Your task to perform on an android device: add a contact Image 0: 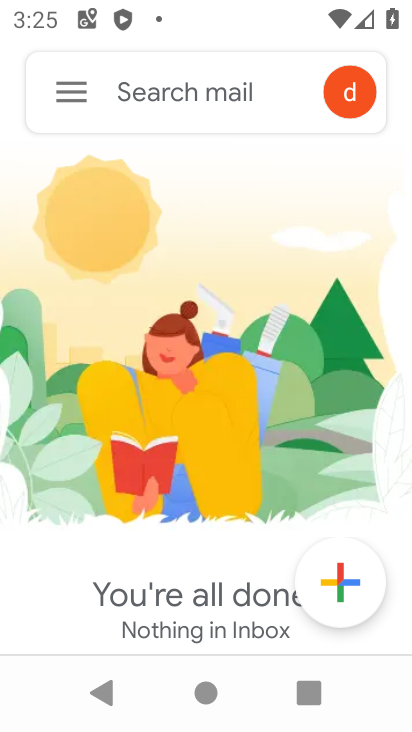
Step 0: press home button
Your task to perform on an android device: add a contact Image 1: 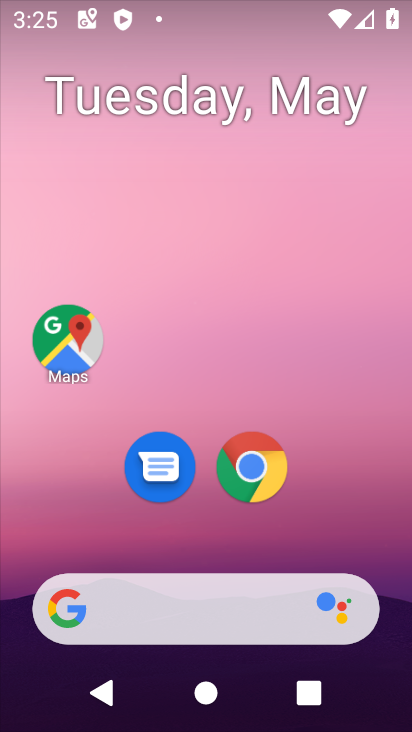
Step 1: drag from (354, 528) to (317, 171)
Your task to perform on an android device: add a contact Image 2: 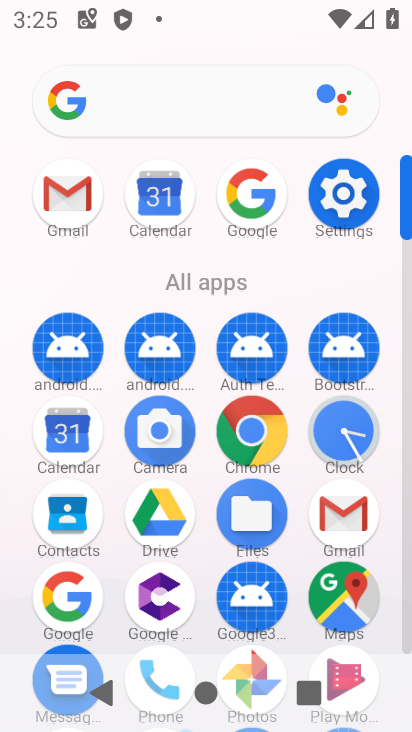
Step 2: click (49, 519)
Your task to perform on an android device: add a contact Image 3: 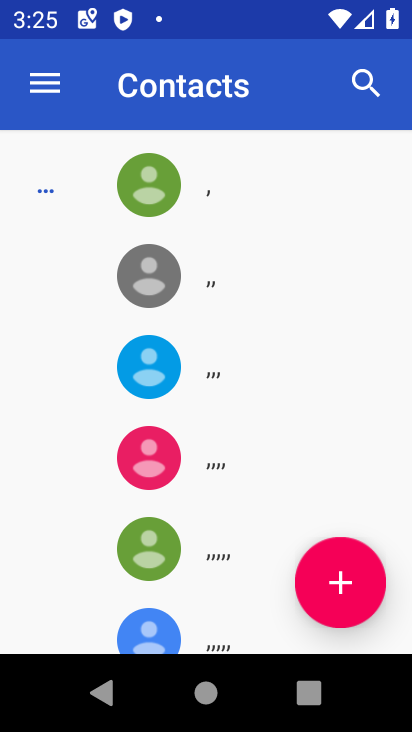
Step 3: click (320, 595)
Your task to perform on an android device: add a contact Image 4: 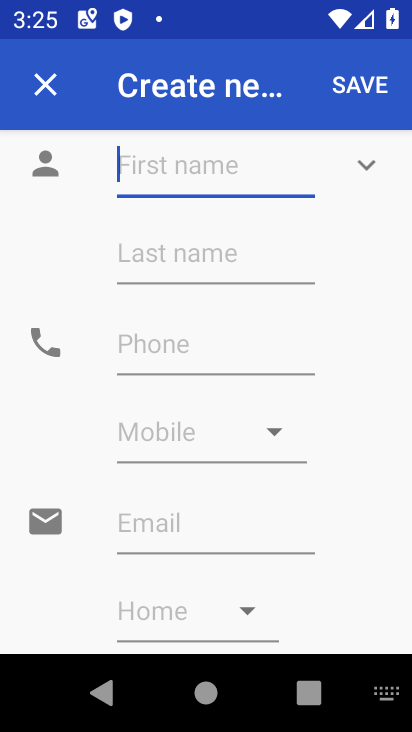
Step 4: click (231, 167)
Your task to perform on an android device: add a contact Image 5: 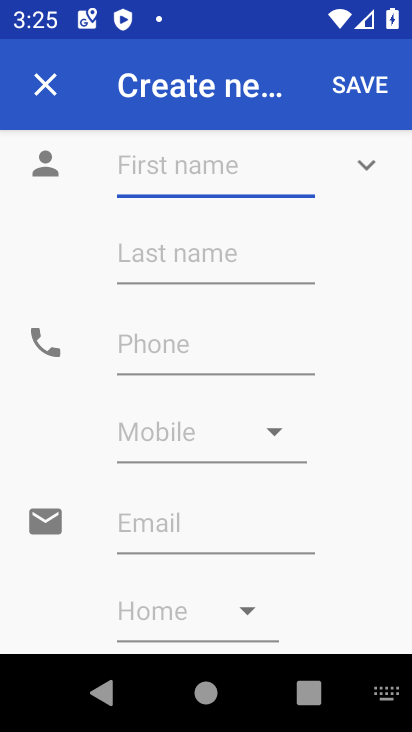
Step 5: type "dffddddddddddr"
Your task to perform on an android device: add a contact Image 6: 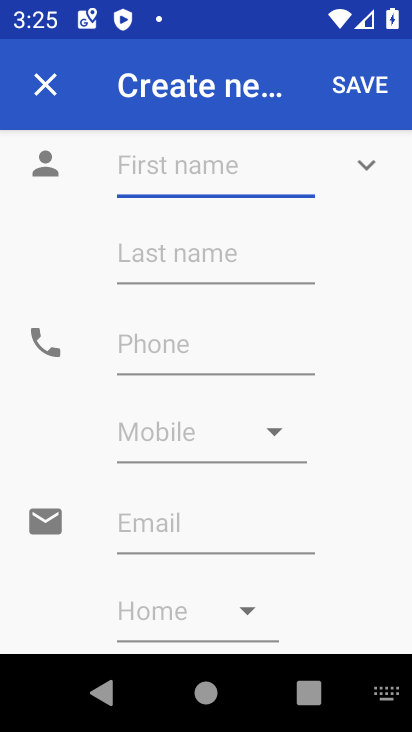
Step 6: click (202, 174)
Your task to perform on an android device: add a contact Image 7: 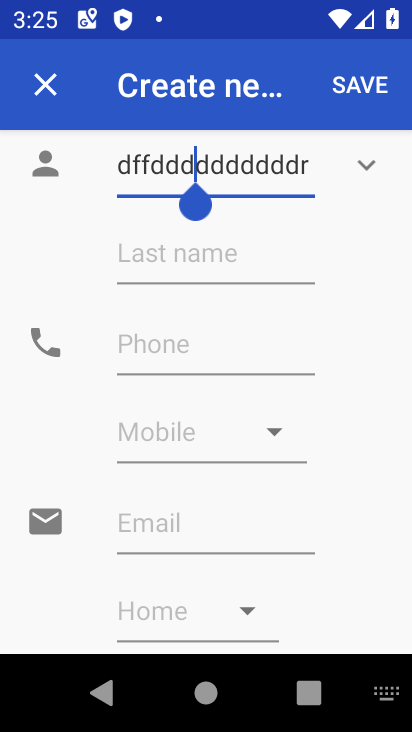
Step 7: click (179, 353)
Your task to perform on an android device: add a contact Image 8: 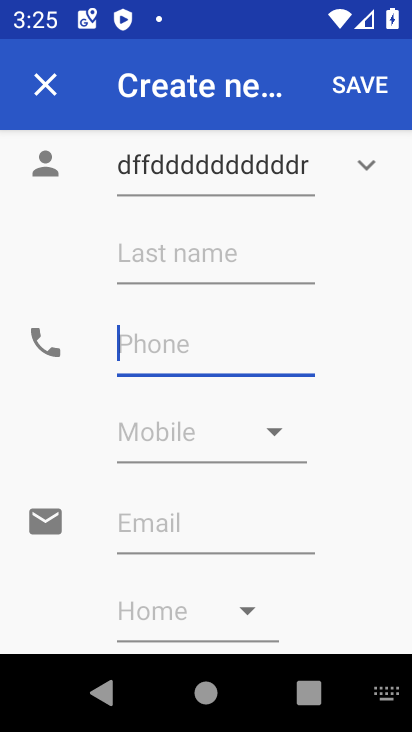
Step 8: click (185, 336)
Your task to perform on an android device: add a contact Image 9: 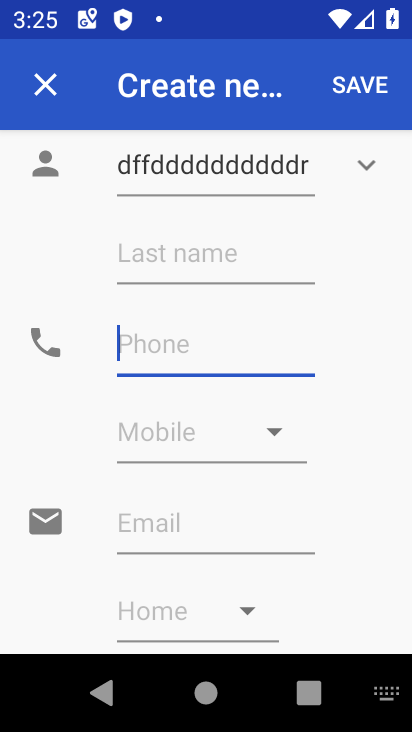
Step 9: click (170, 358)
Your task to perform on an android device: add a contact Image 10: 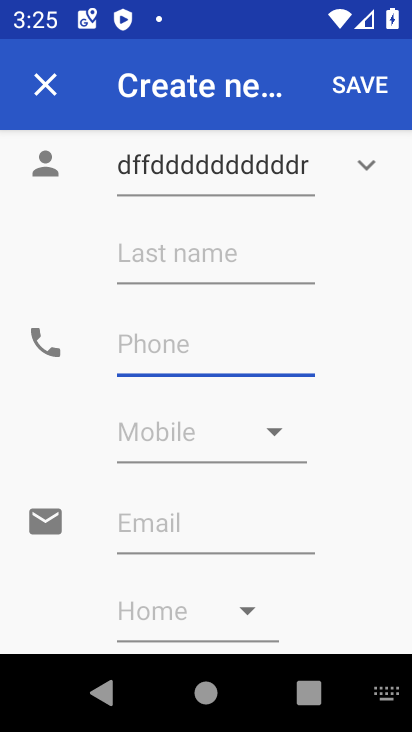
Step 10: type "545354655667"
Your task to perform on an android device: add a contact Image 11: 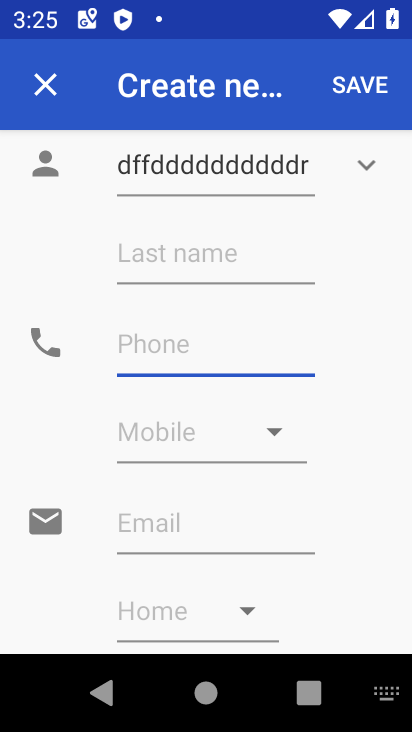
Step 11: click (166, 348)
Your task to perform on an android device: add a contact Image 12: 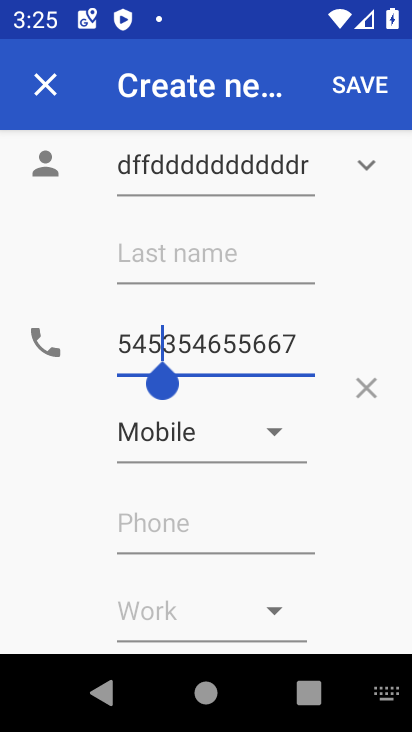
Step 12: click (156, 345)
Your task to perform on an android device: add a contact Image 13: 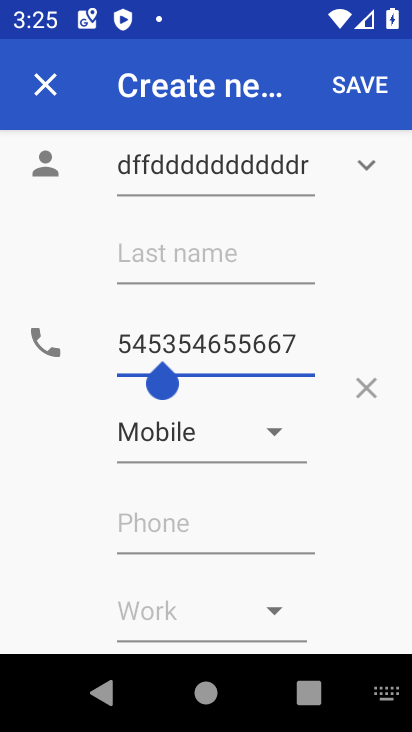
Step 13: click (374, 81)
Your task to perform on an android device: add a contact Image 14: 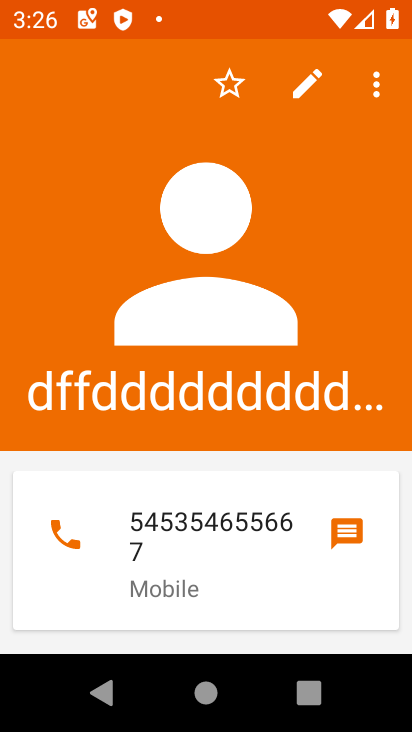
Step 14: task complete